Your task to perform on an android device: turn off javascript in the chrome app Image 0: 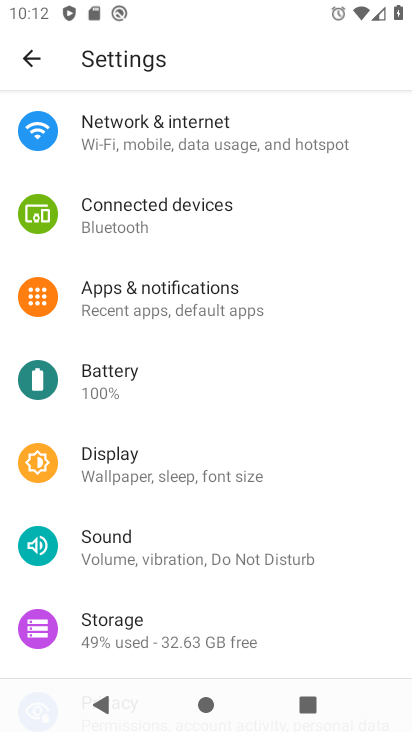
Step 0: press home button
Your task to perform on an android device: turn off javascript in the chrome app Image 1: 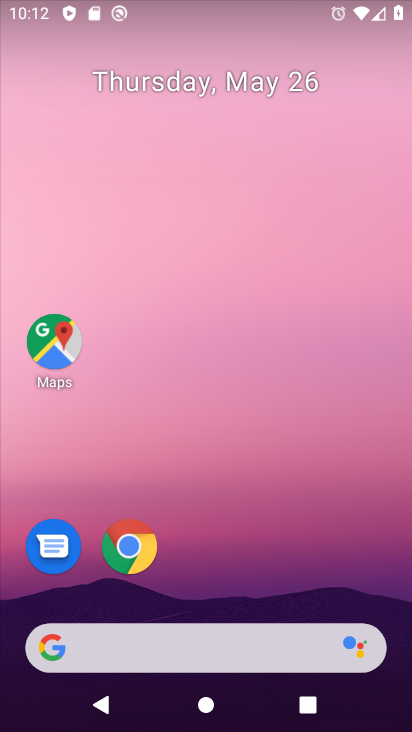
Step 1: click (130, 548)
Your task to perform on an android device: turn off javascript in the chrome app Image 2: 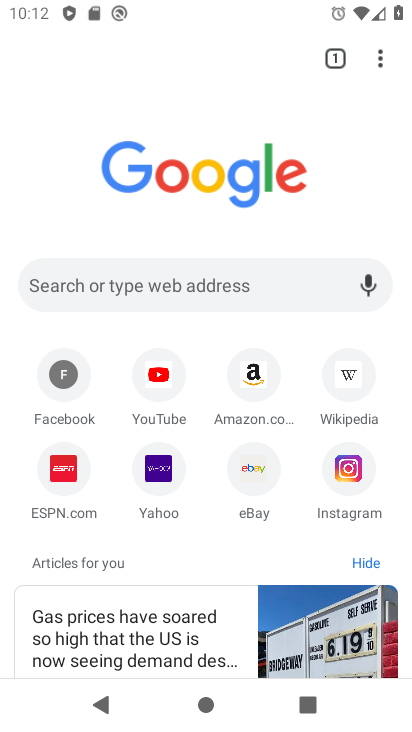
Step 2: click (378, 55)
Your task to perform on an android device: turn off javascript in the chrome app Image 3: 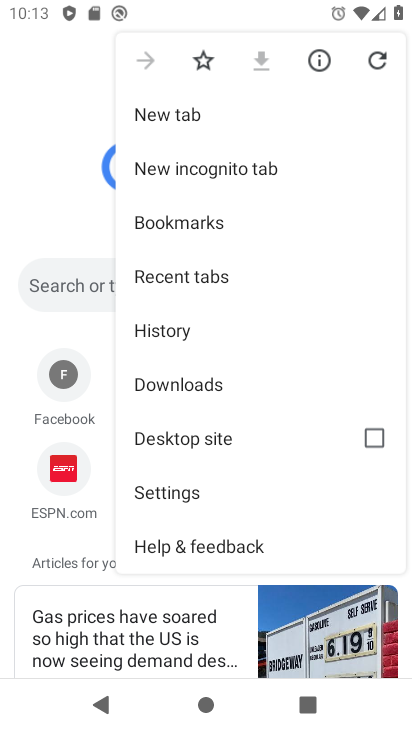
Step 3: click (156, 485)
Your task to perform on an android device: turn off javascript in the chrome app Image 4: 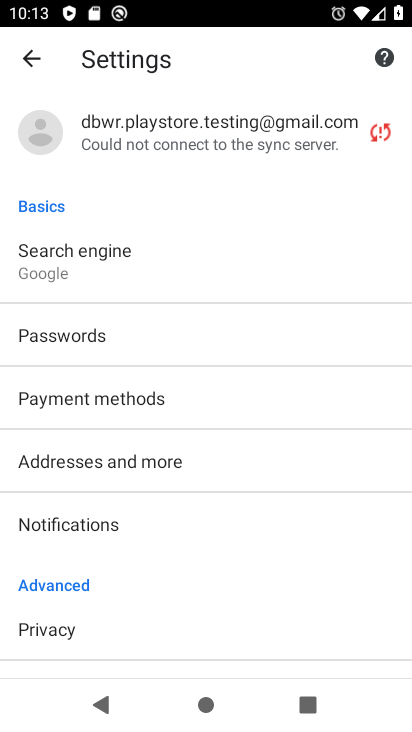
Step 4: drag from (133, 610) to (170, 521)
Your task to perform on an android device: turn off javascript in the chrome app Image 5: 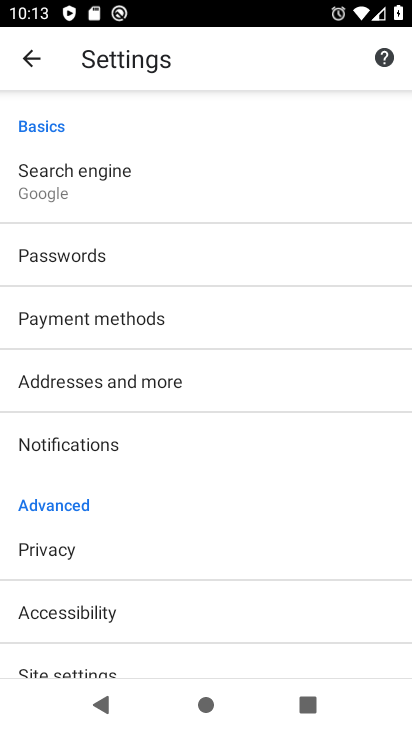
Step 5: drag from (144, 546) to (190, 458)
Your task to perform on an android device: turn off javascript in the chrome app Image 6: 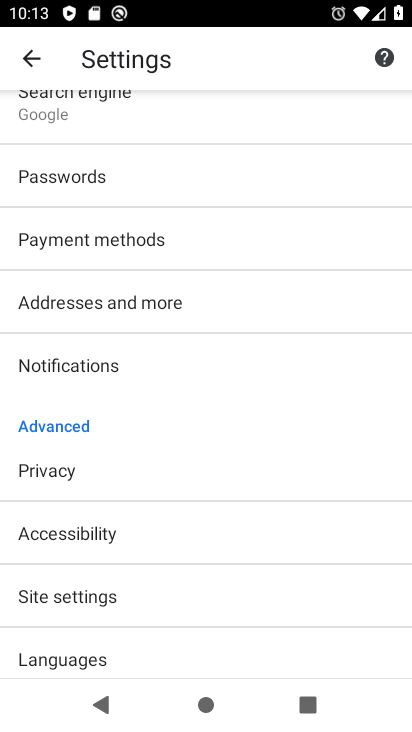
Step 6: click (83, 596)
Your task to perform on an android device: turn off javascript in the chrome app Image 7: 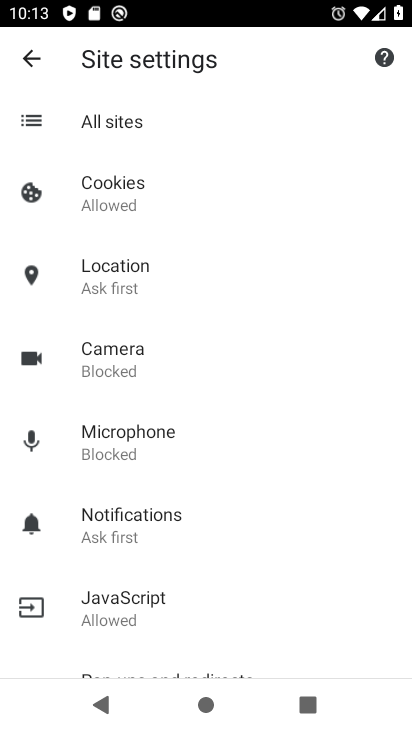
Step 7: drag from (139, 484) to (201, 383)
Your task to perform on an android device: turn off javascript in the chrome app Image 8: 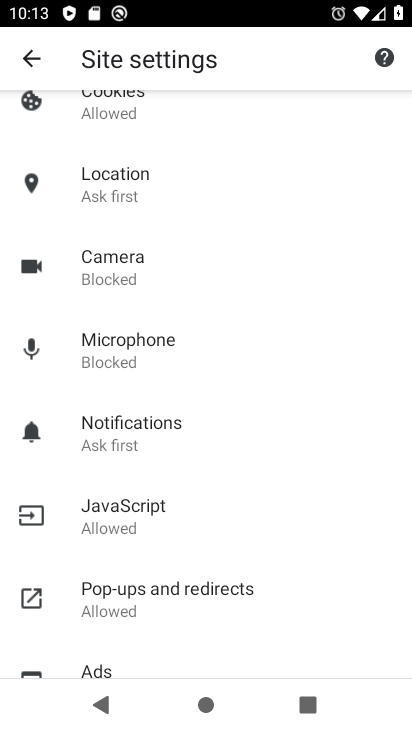
Step 8: click (136, 498)
Your task to perform on an android device: turn off javascript in the chrome app Image 9: 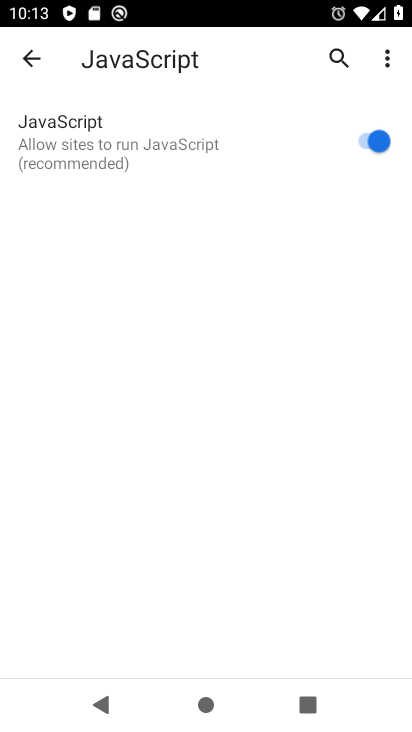
Step 9: click (363, 144)
Your task to perform on an android device: turn off javascript in the chrome app Image 10: 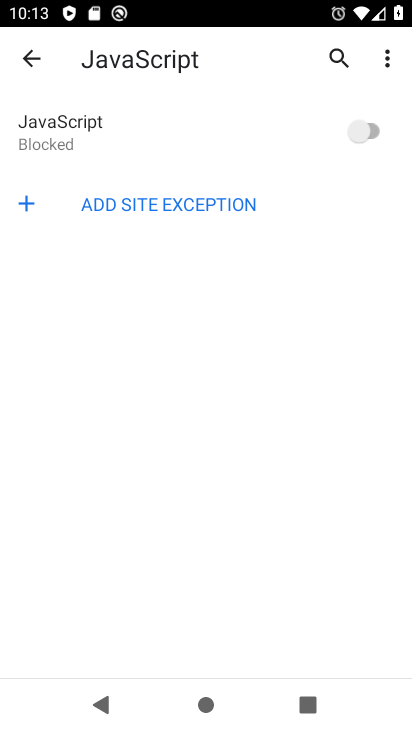
Step 10: task complete